Your task to perform on an android device: Open settings on Google Maps Image 0: 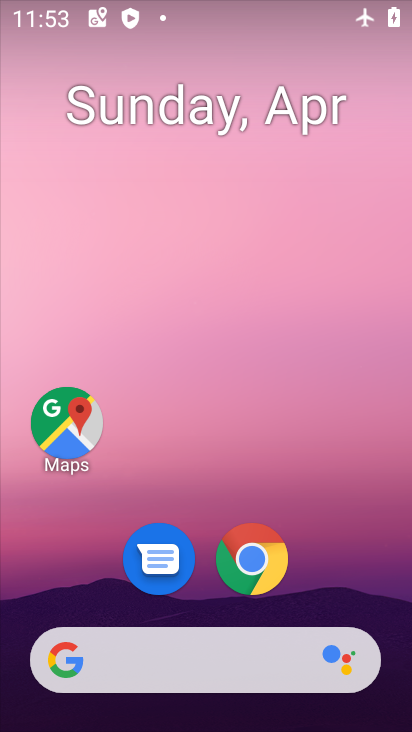
Step 0: drag from (334, 62) to (320, 518)
Your task to perform on an android device: Open settings on Google Maps Image 1: 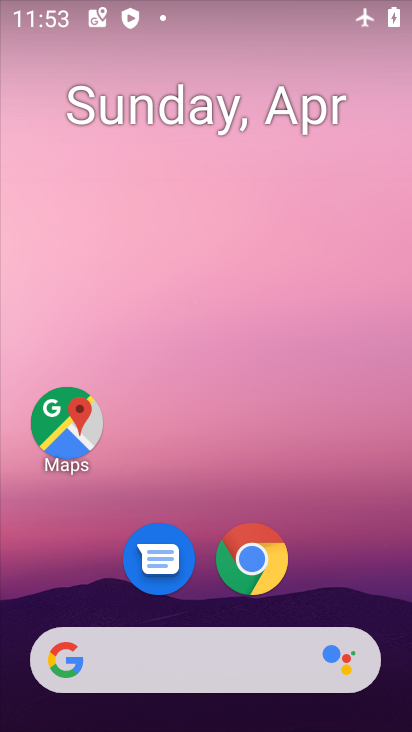
Step 1: click (57, 424)
Your task to perform on an android device: Open settings on Google Maps Image 2: 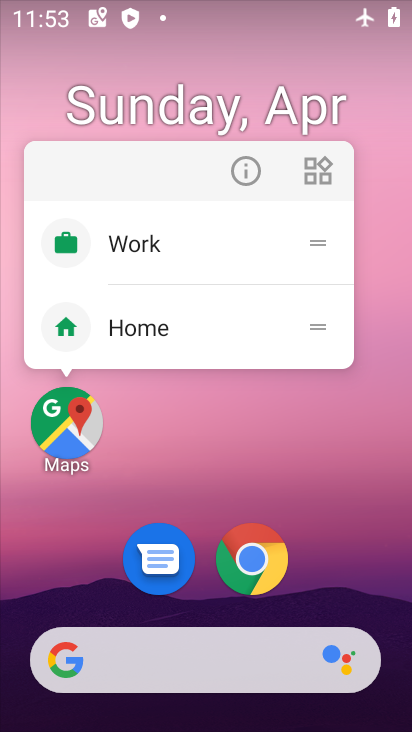
Step 2: click (41, 424)
Your task to perform on an android device: Open settings on Google Maps Image 3: 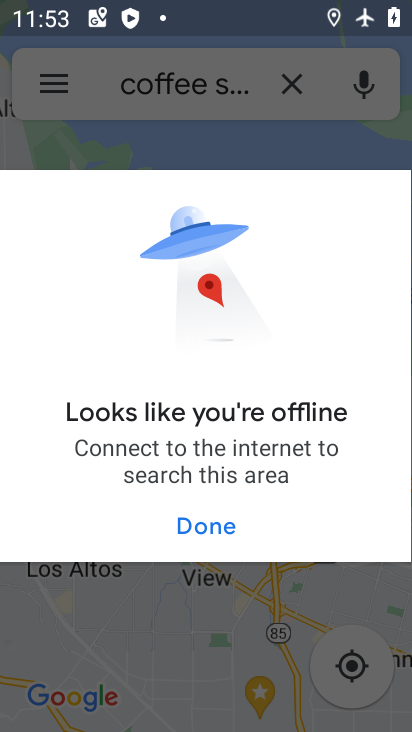
Step 3: press back button
Your task to perform on an android device: Open settings on Google Maps Image 4: 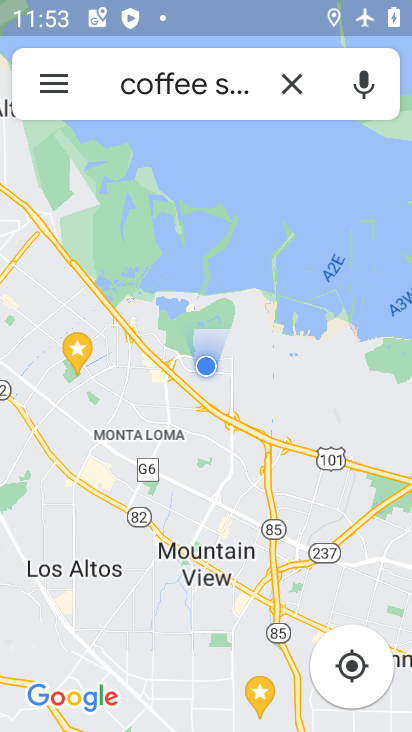
Step 4: click (46, 87)
Your task to perform on an android device: Open settings on Google Maps Image 5: 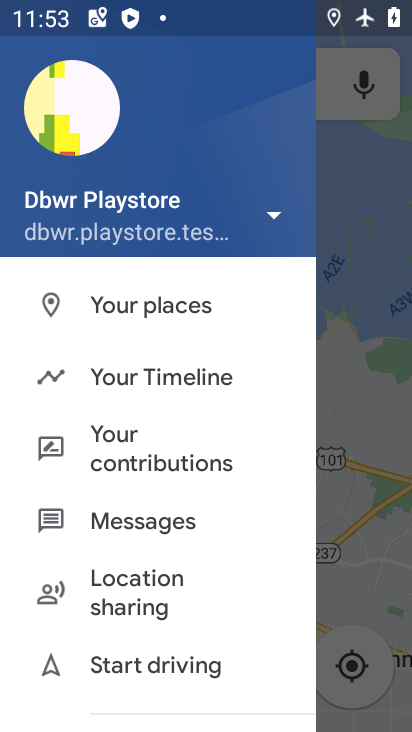
Step 5: drag from (159, 503) to (156, 382)
Your task to perform on an android device: Open settings on Google Maps Image 6: 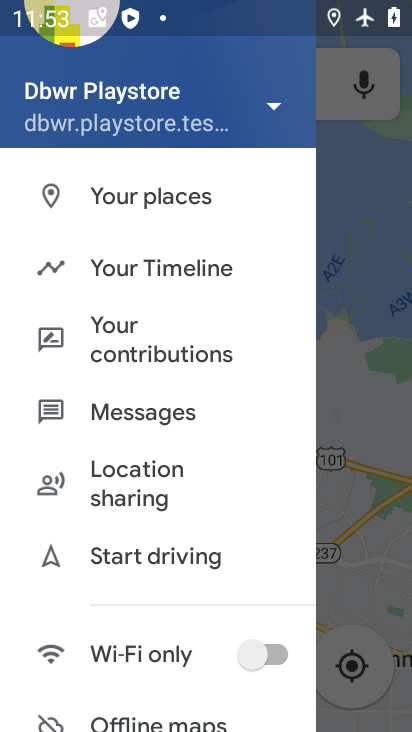
Step 6: drag from (182, 591) to (174, 446)
Your task to perform on an android device: Open settings on Google Maps Image 7: 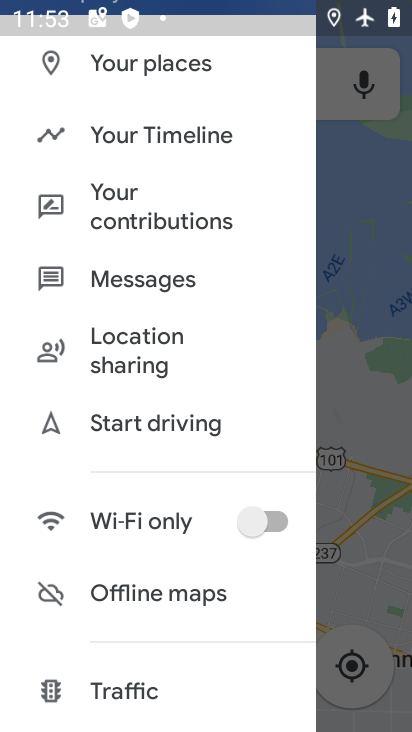
Step 7: drag from (173, 653) to (166, 411)
Your task to perform on an android device: Open settings on Google Maps Image 8: 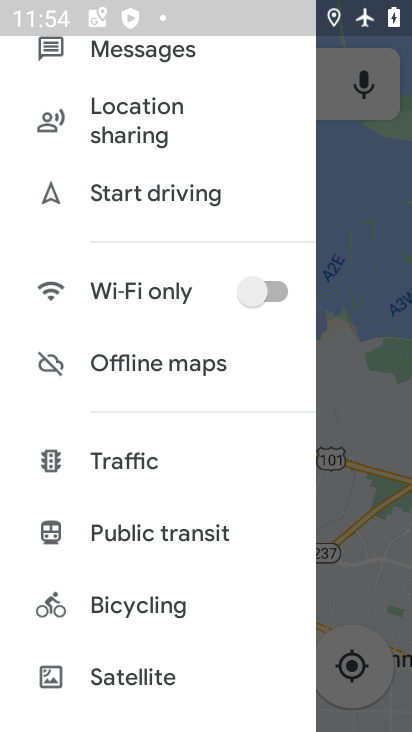
Step 8: drag from (211, 645) to (211, 332)
Your task to perform on an android device: Open settings on Google Maps Image 9: 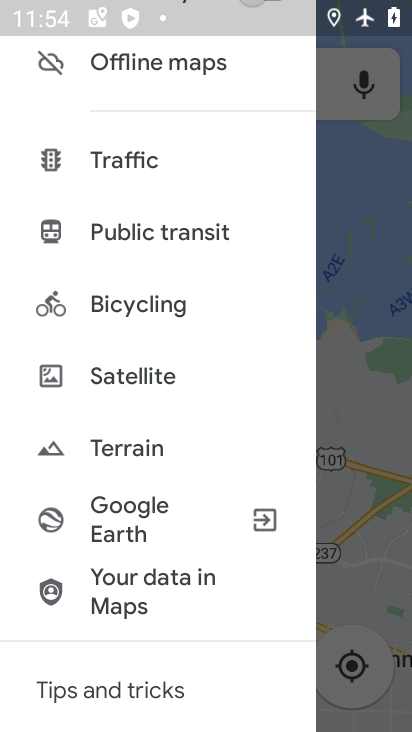
Step 9: drag from (197, 627) to (188, 438)
Your task to perform on an android device: Open settings on Google Maps Image 10: 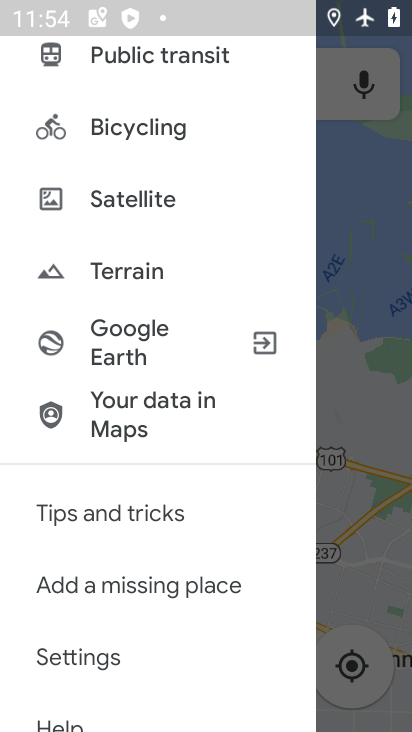
Step 10: click (118, 668)
Your task to perform on an android device: Open settings on Google Maps Image 11: 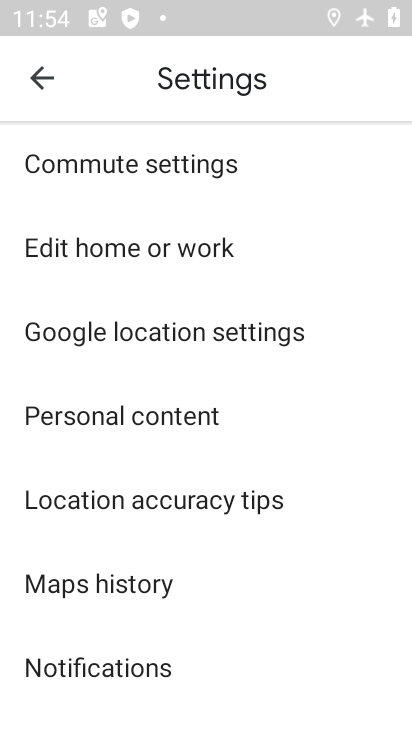
Step 11: task complete